Your task to perform on an android device: Open eBay Image 0: 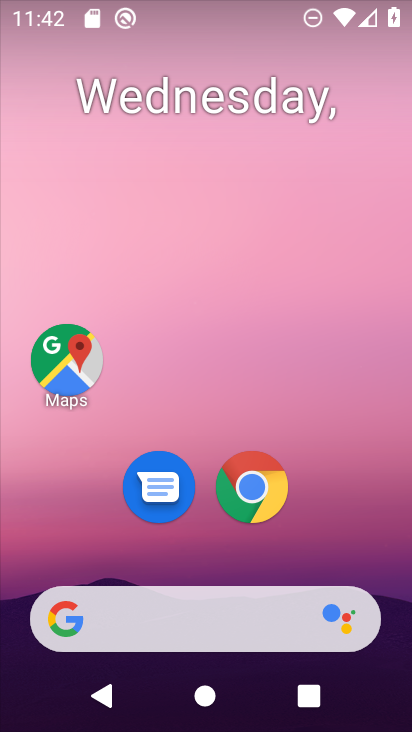
Step 0: click (248, 484)
Your task to perform on an android device: Open eBay Image 1: 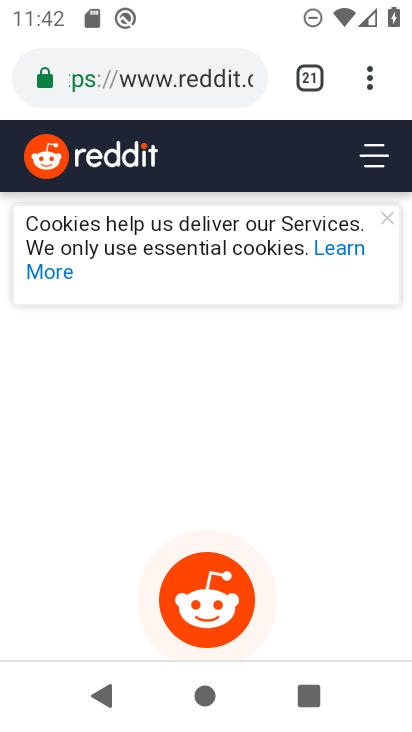
Step 1: click (373, 74)
Your task to perform on an android device: Open eBay Image 2: 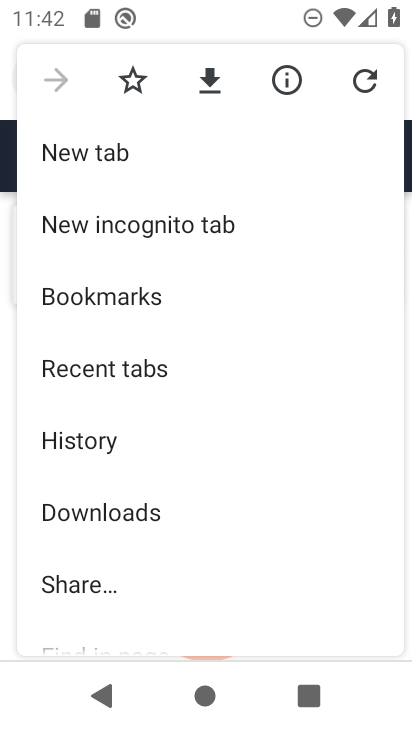
Step 2: click (94, 149)
Your task to perform on an android device: Open eBay Image 3: 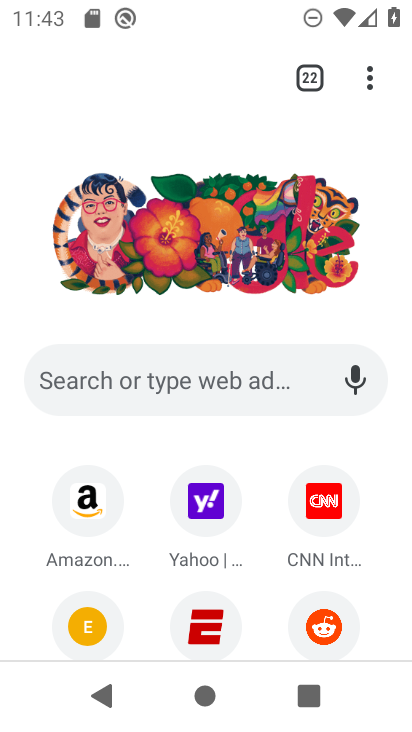
Step 3: click (201, 377)
Your task to perform on an android device: Open eBay Image 4: 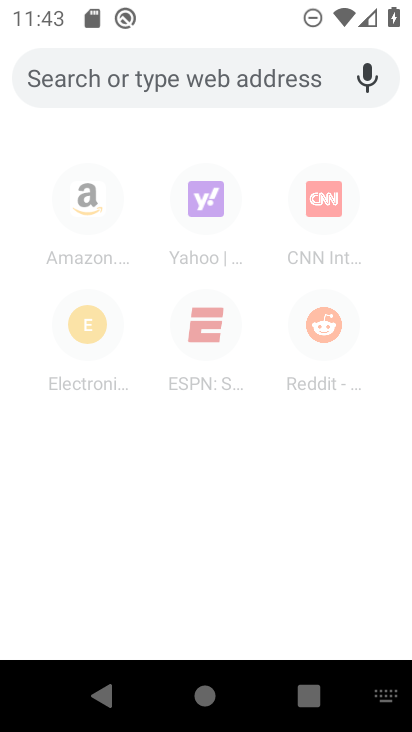
Step 4: type "ebay"
Your task to perform on an android device: Open eBay Image 5: 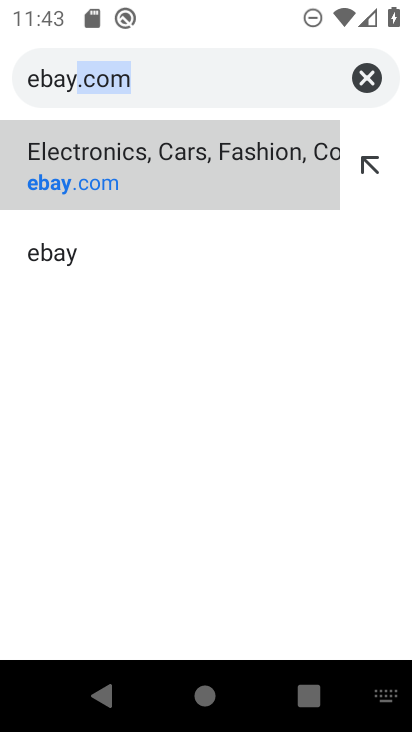
Step 5: click (147, 154)
Your task to perform on an android device: Open eBay Image 6: 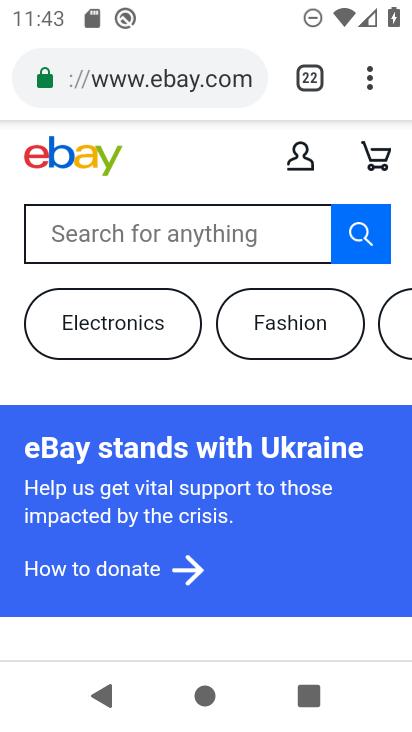
Step 6: task complete